Your task to perform on an android device: Search for the best gaming mouses on Amazon. Image 0: 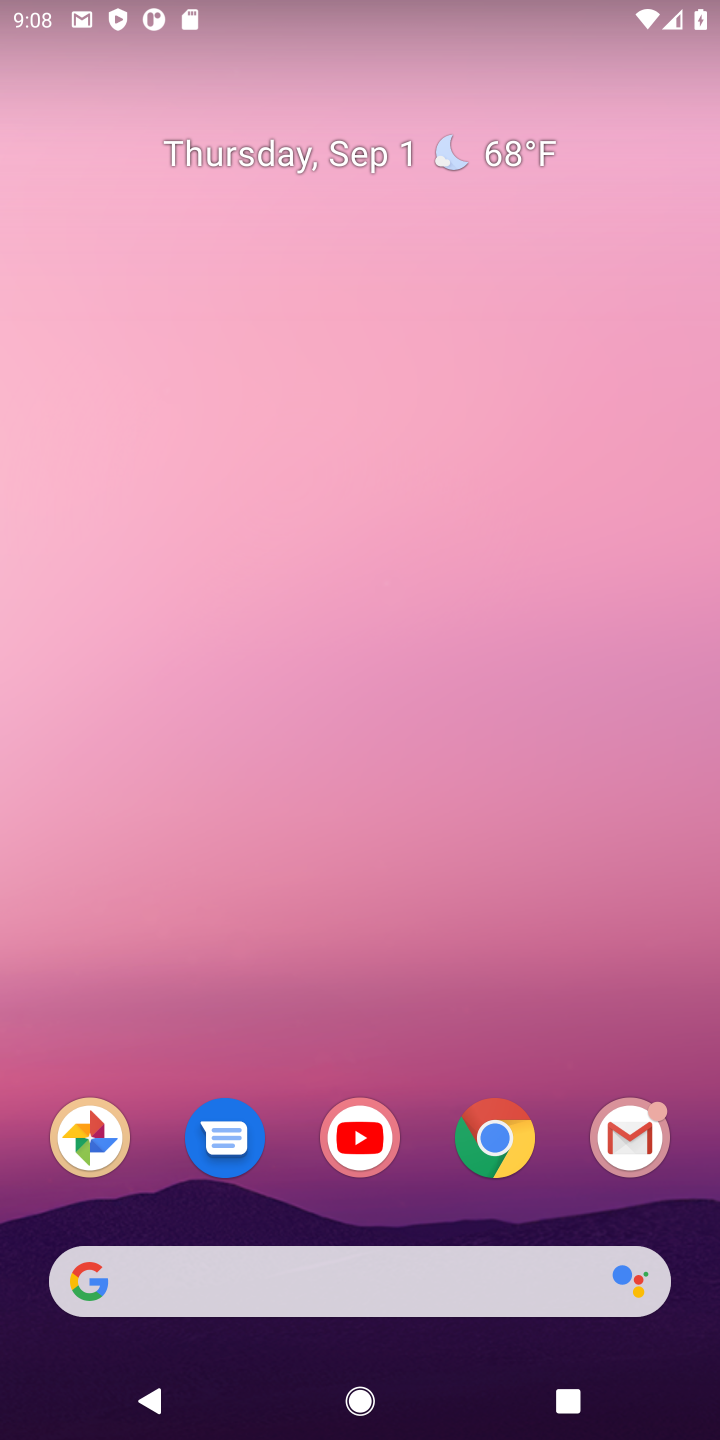
Step 0: click (501, 1150)
Your task to perform on an android device: Search for the best gaming mouses on Amazon. Image 1: 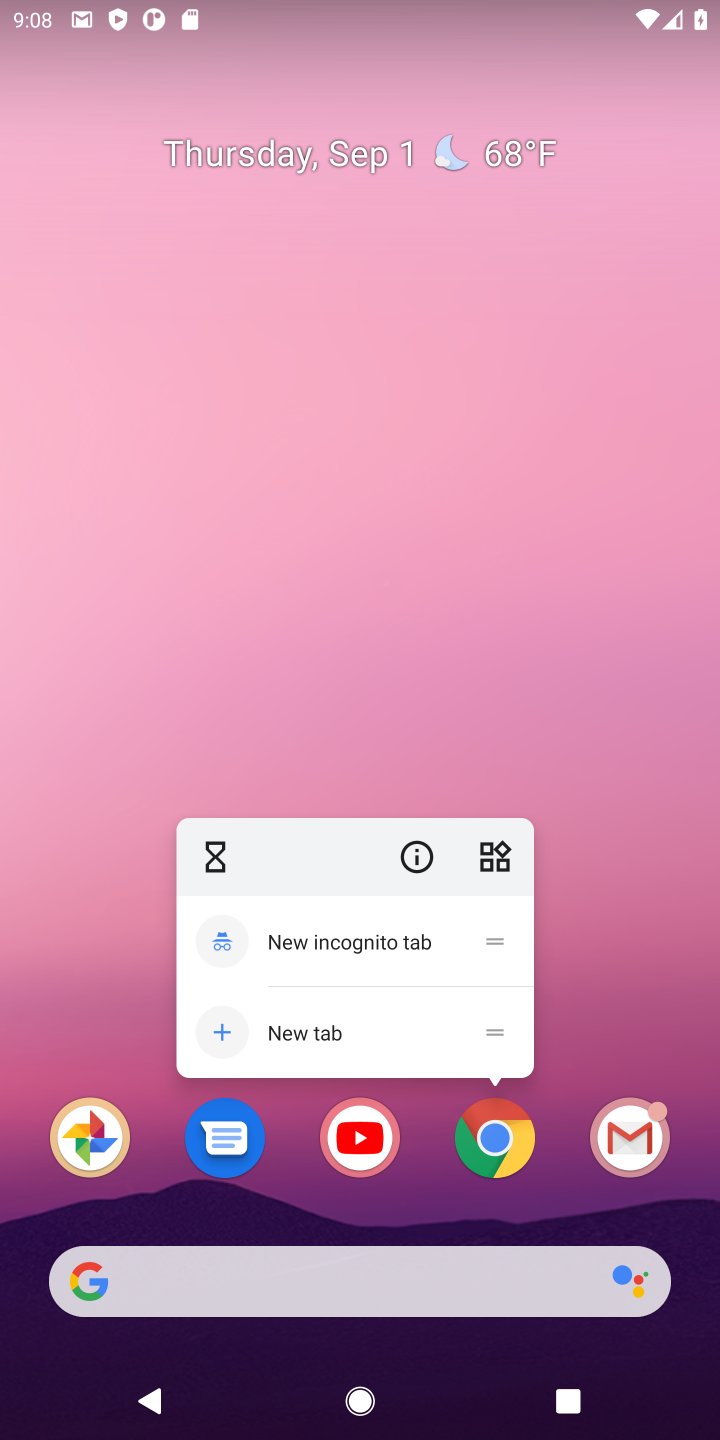
Step 1: click (495, 1117)
Your task to perform on an android device: Search for the best gaming mouses on Amazon. Image 2: 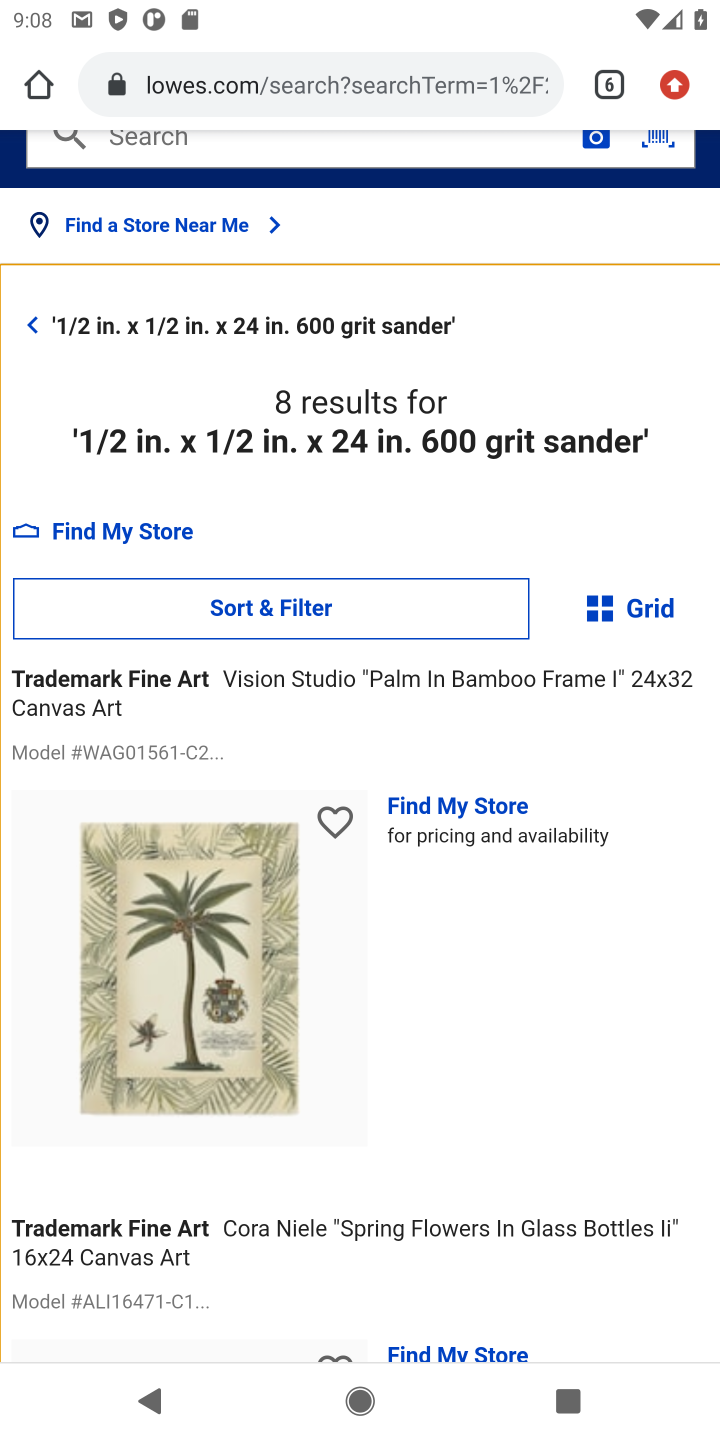
Step 2: click (608, 76)
Your task to perform on an android device: Search for the best gaming mouses on Amazon. Image 3: 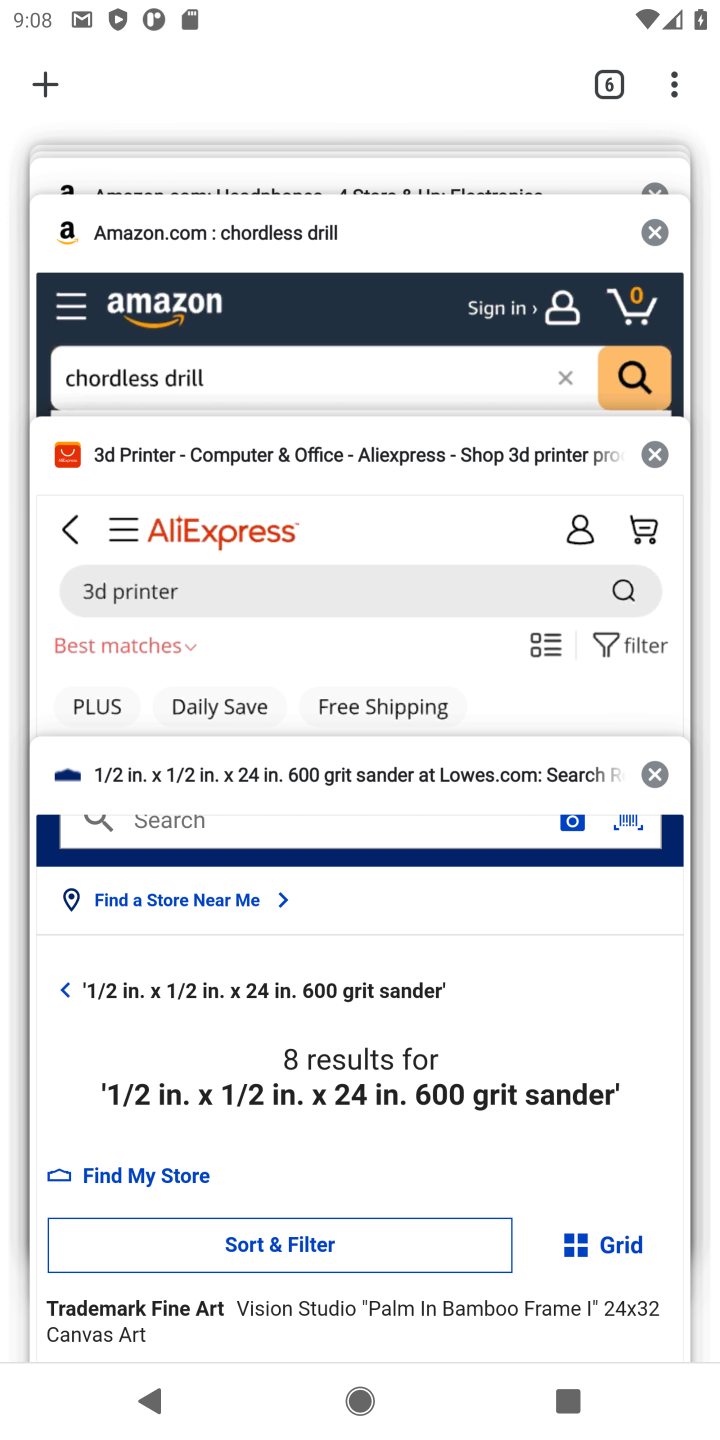
Step 3: click (435, 245)
Your task to perform on an android device: Search for the best gaming mouses on Amazon. Image 4: 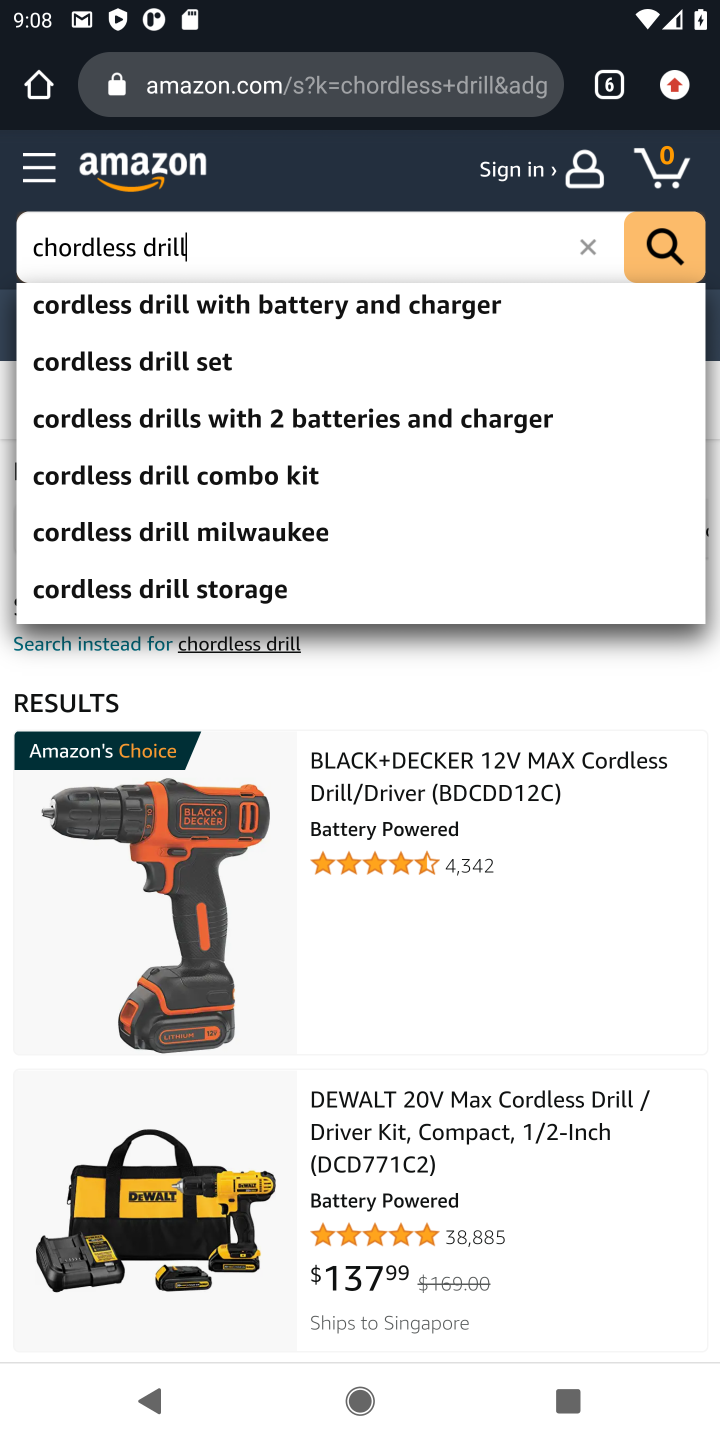
Step 4: click (534, 235)
Your task to perform on an android device: Search for the best gaming mouses on Amazon. Image 5: 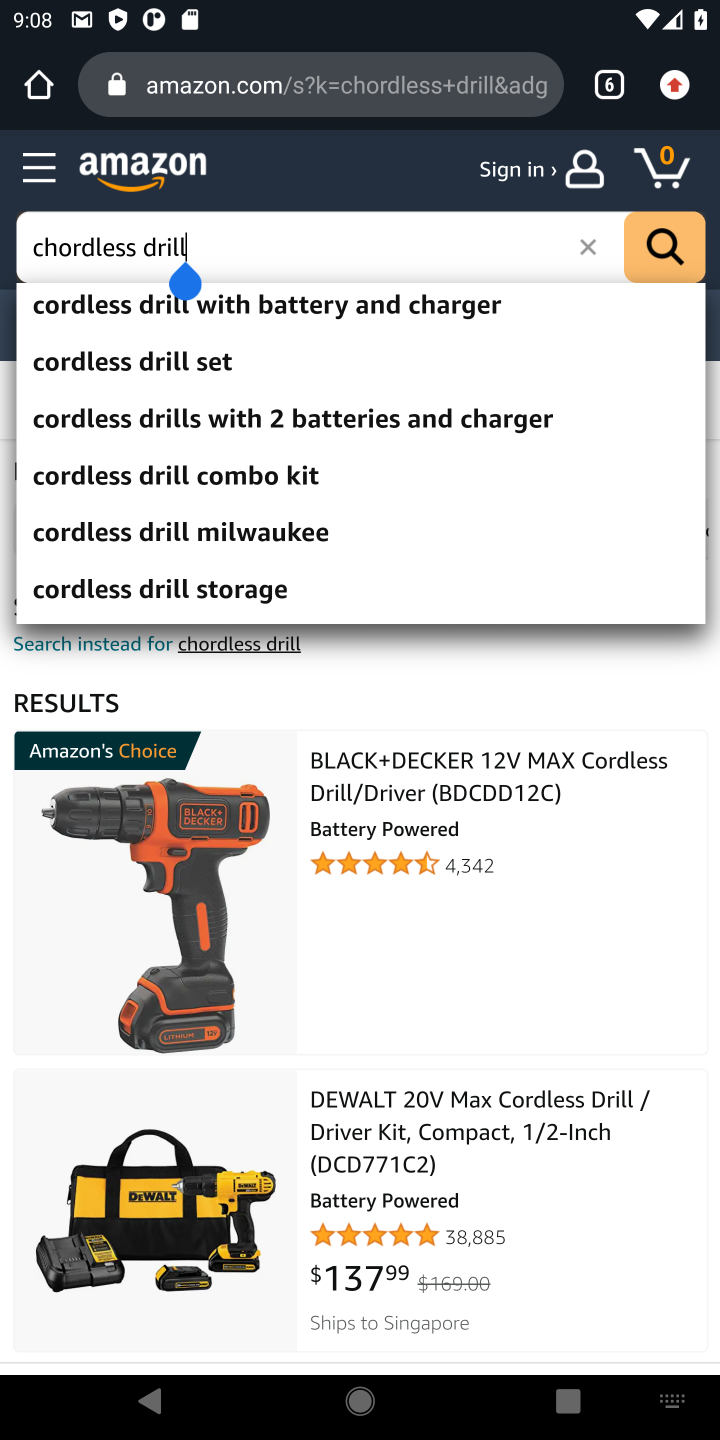
Step 5: click (583, 245)
Your task to perform on an android device: Search for the best gaming mouses on Amazon. Image 6: 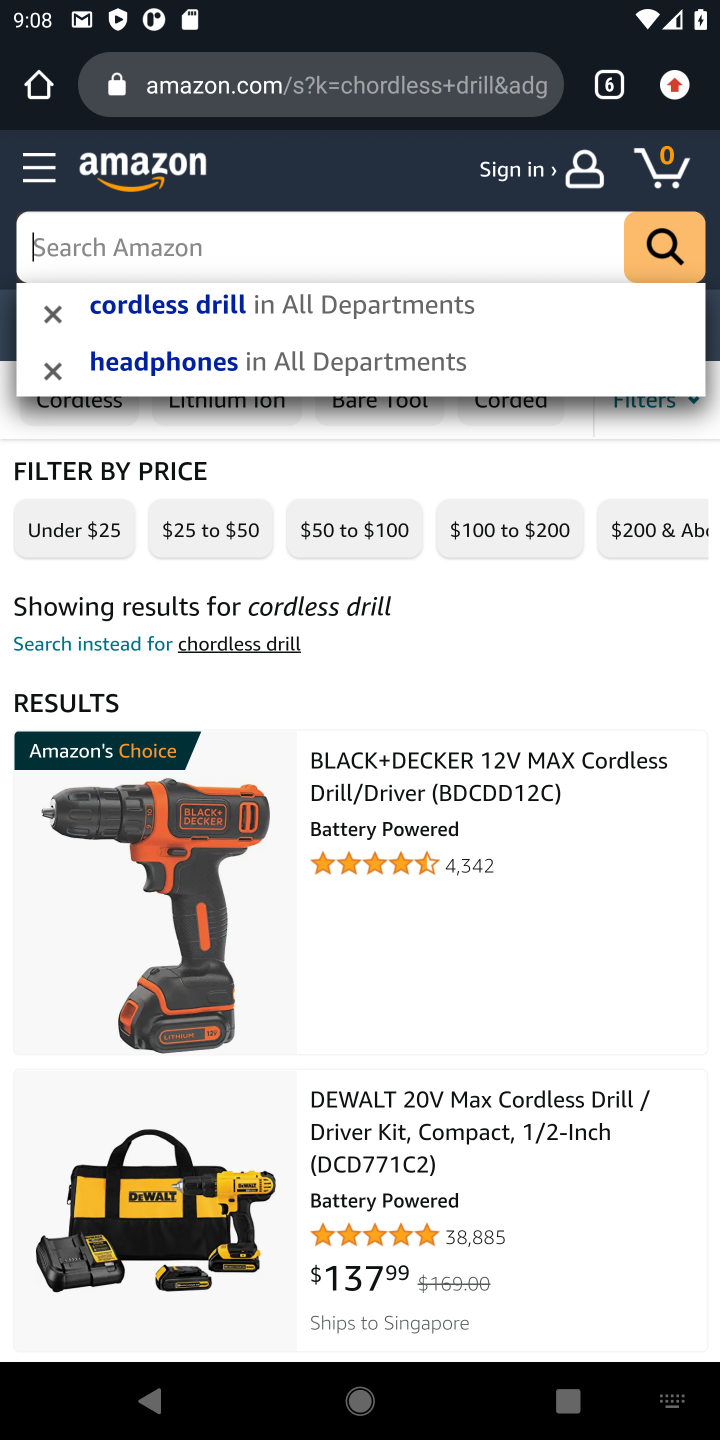
Step 6: type "best gaming mouse"
Your task to perform on an android device: Search for the best gaming mouses on Amazon. Image 7: 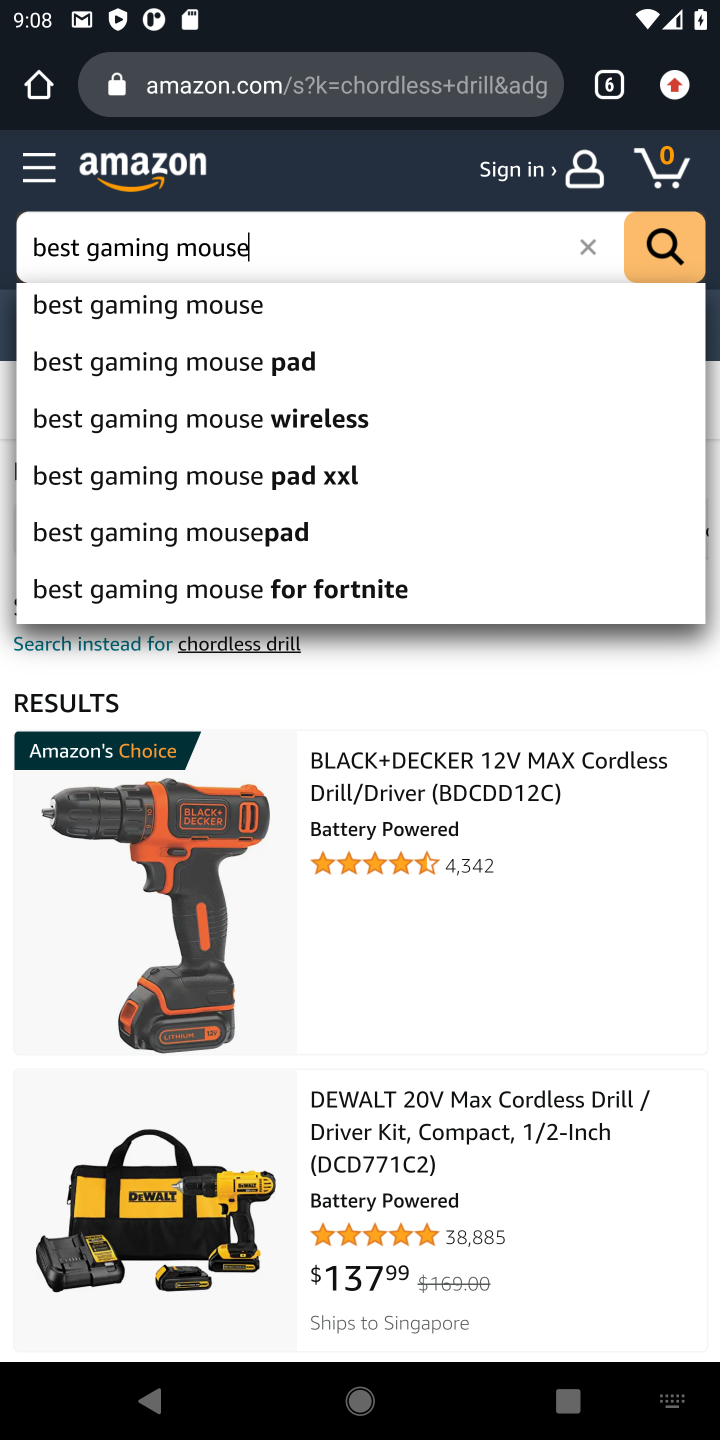
Step 7: type "s"
Your task to perform on an android device: Search for the best gaming mouses on Amazon. Image 8: 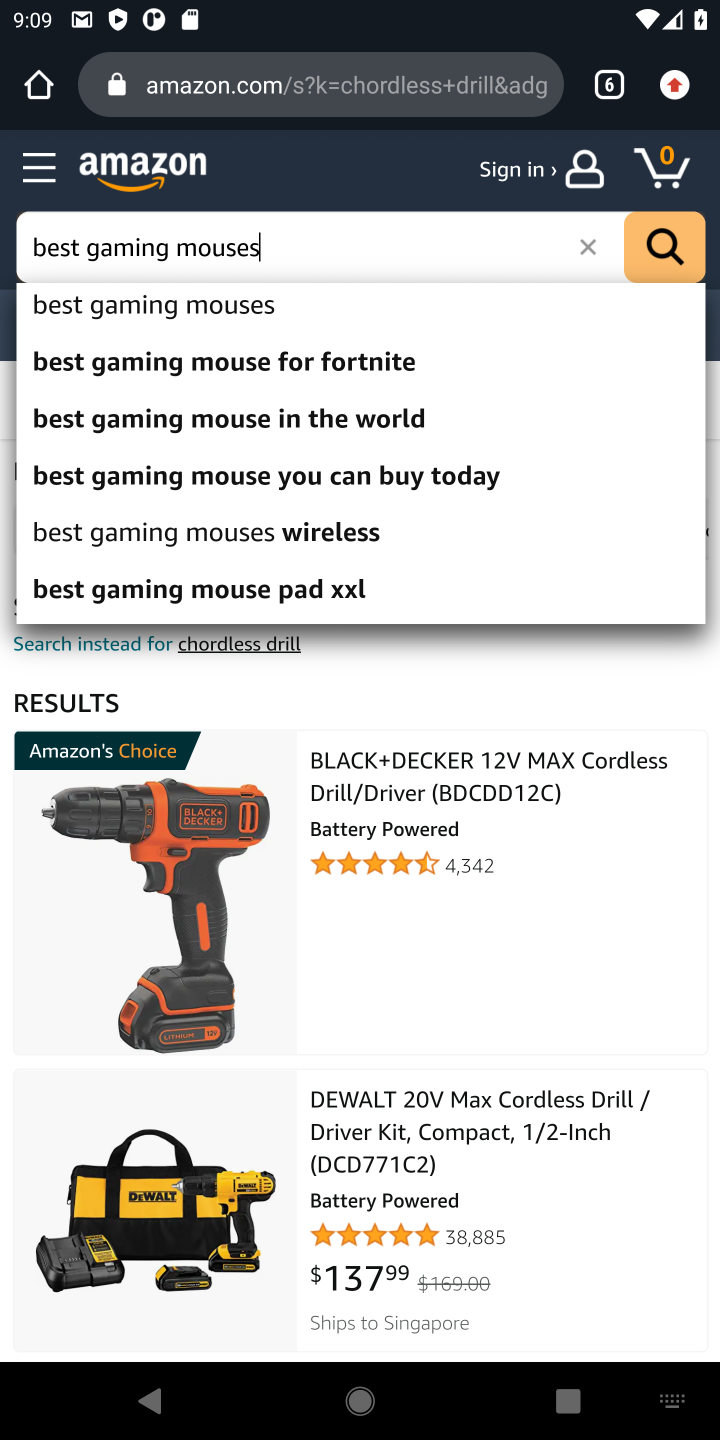
Step 8: click (277, 305)
Your task to perform on an android device: Search for the best gaming mouses on Amazon. Image 9: 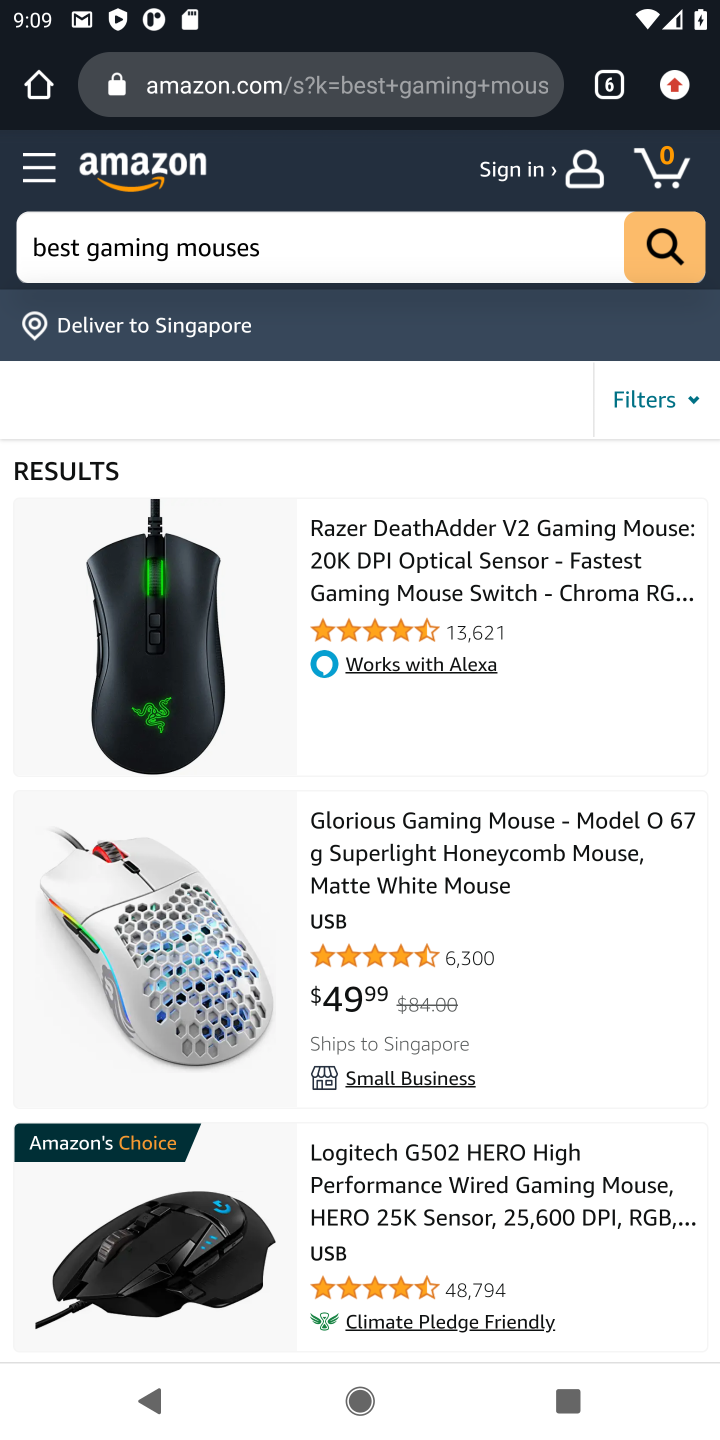
Step 9: task complete